Your task to perform on an android device: open the mobile data screen to see how much data has been used Image 0: 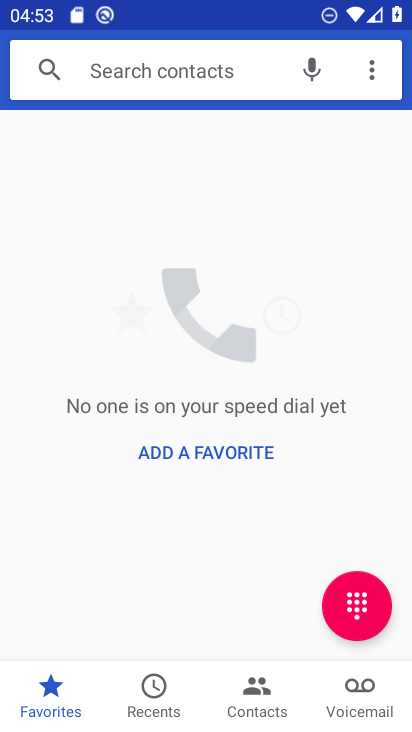
Step 0: press home button
Your task to perform on an android device: open the mobile data screen to see how much data has been used Image 1: 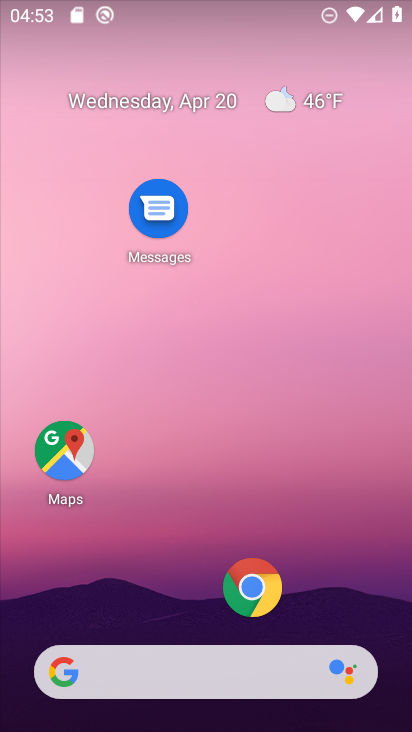
Step 1: drag from (161, 600) to (209, 202)
Your task to perform on an android device: open the mobile data screen to see how much data has been used Image 2: 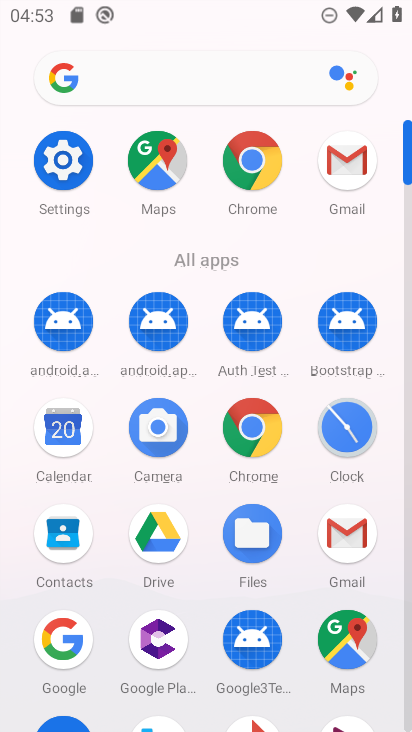
Step 2: click (62, 161)
Your task to perform on an android device: open the mobile data screen to see how much data has been used Image 3: 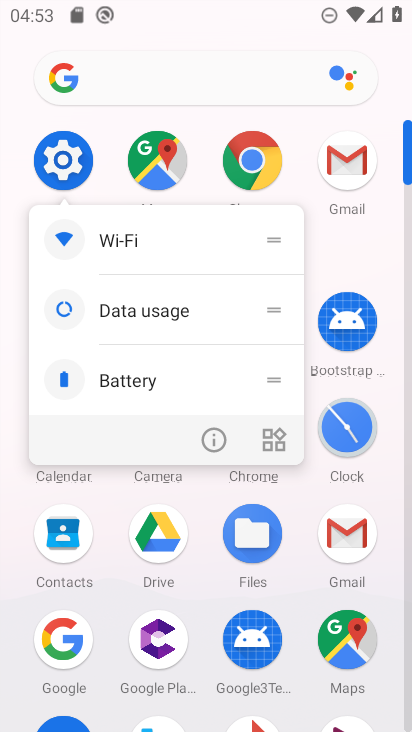
Step 3: click (62, 161)
Your task to perform on an android device: open the mobile data screen to see how much data has been used Image 4: 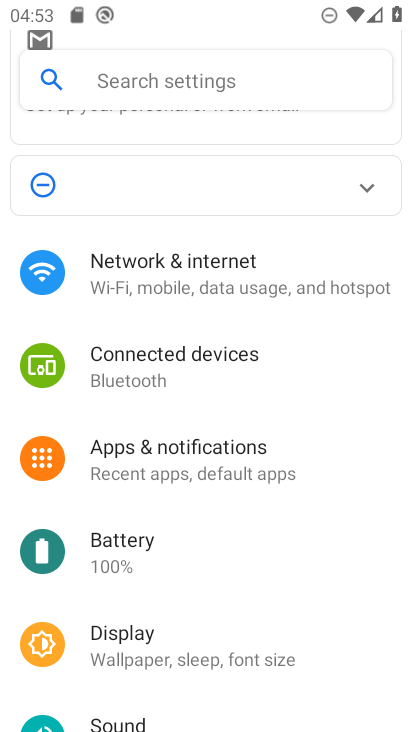
Step 4: drag from (241, 595) to (245, 356)
Your task to perform on an android device: open the mobile data screen to see how much data has been used Image 5: 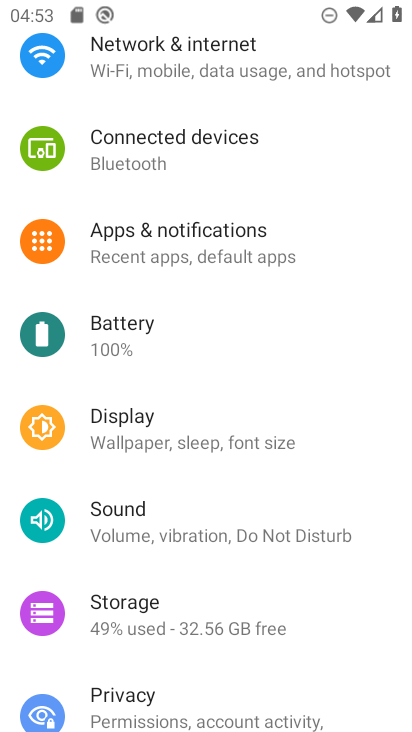
Step 5: click (230, 83)
Your task to perform on an android device: open the mobile data screen to see how much data has been used Image 6: 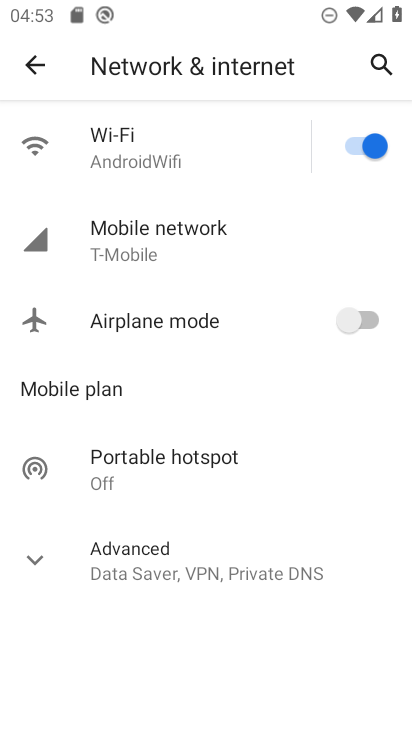
Step 6: click (215, 225)
Your task to perform on an android device: open the mobile data screen to see how much data has been used Image 7: 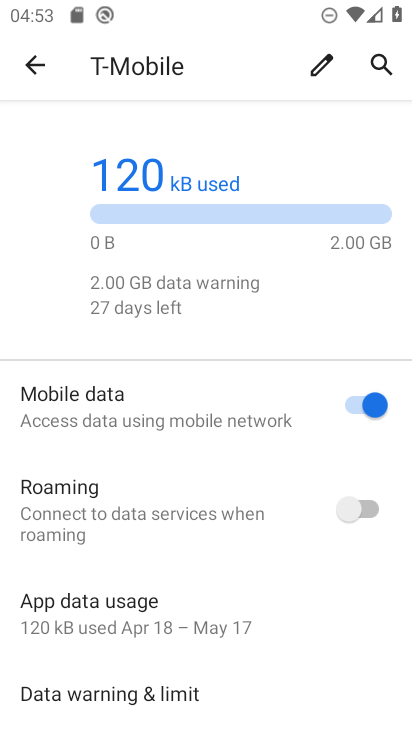
Step 7: task complete